Your task to perform on an android device: check data usage Image 0: 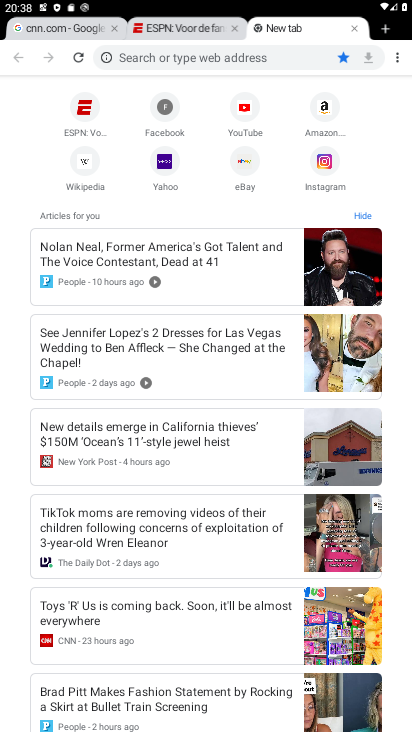
Step 0: drag from (236, 6) to (254, 230)
Your task to perform on an android device: check data usage Image 1: 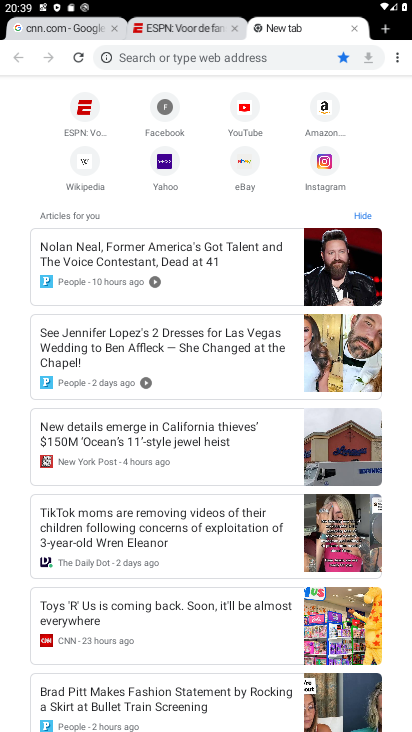
Step 1: drag from (248, 11) to (251, 181)
Your task to perform on an android device: check data usage Image 2: 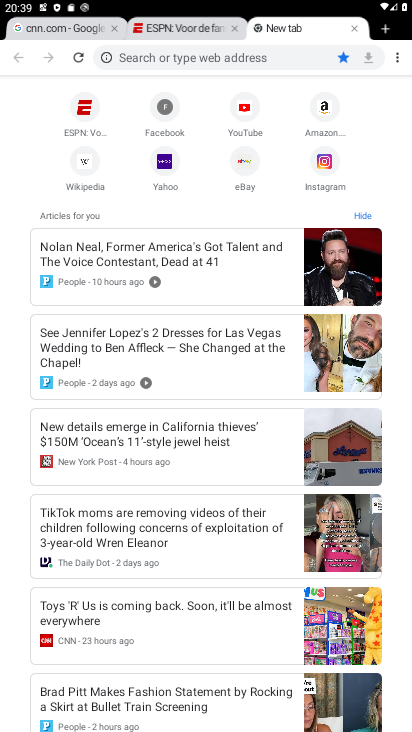
Step 2: drag from (233, 11) to (212, 590)
Your task to perform on an android device: check data usage Image 3: 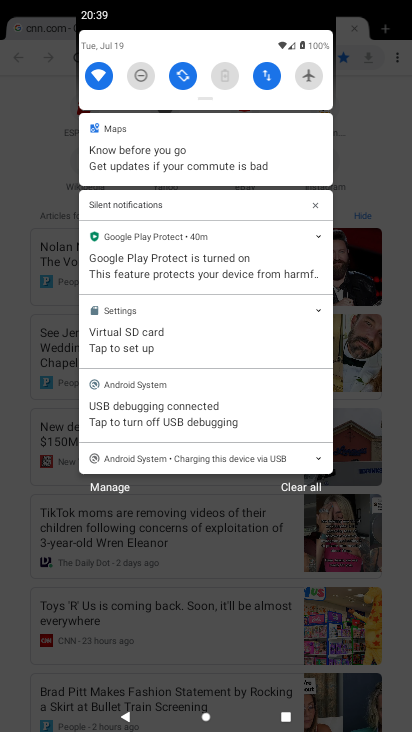
Step 3: click (266, 79)
Your task to perform on an android device: check data usage Image 4: 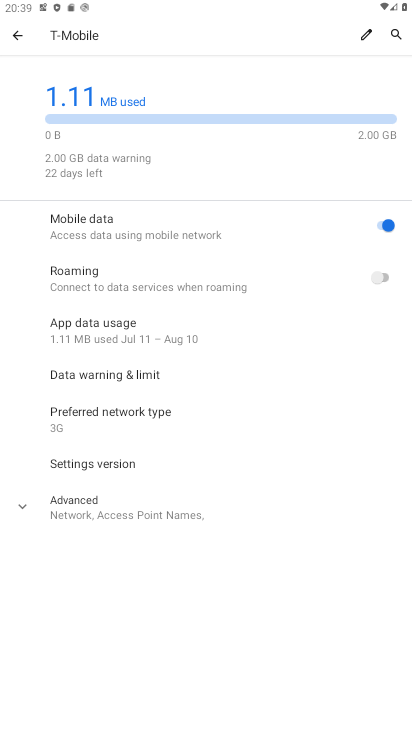
Step 4: task complete